Your task to perform on an android device: Go to settings Image 0: 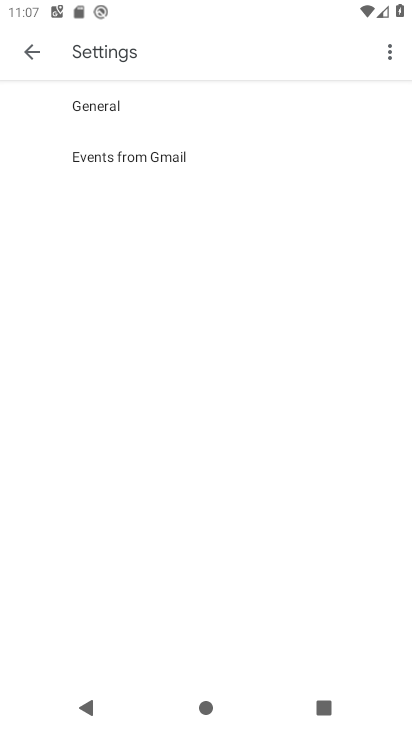
Step 0: task complete